Your task to perform on an android device: check battery use Image 0: 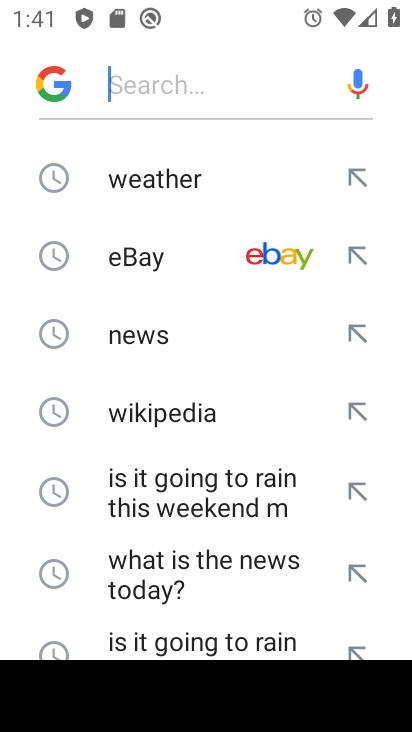
Step 0: press home button
Your task to perform on an android device: check battery use Image 1: 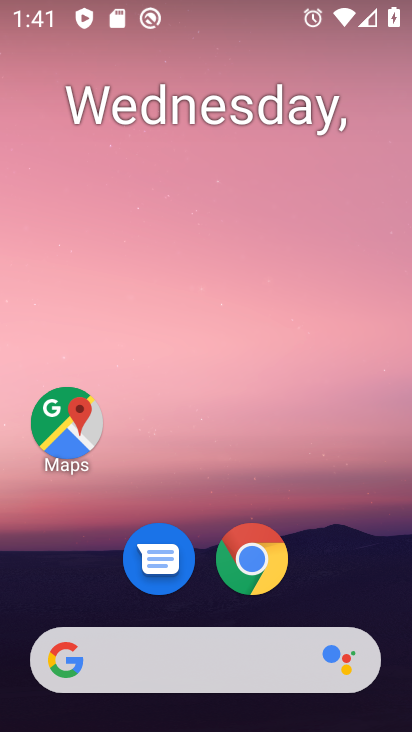
Step 1: drag from (357, 605) to (341, 109)
Your task to perform on an android device: check battery use Image 2: 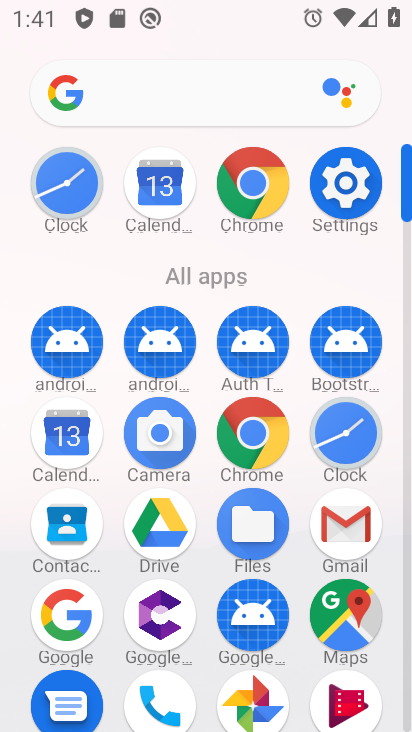
Step 2: click (349, 177)
Your task to perform on an android device: check battery use Image 3: 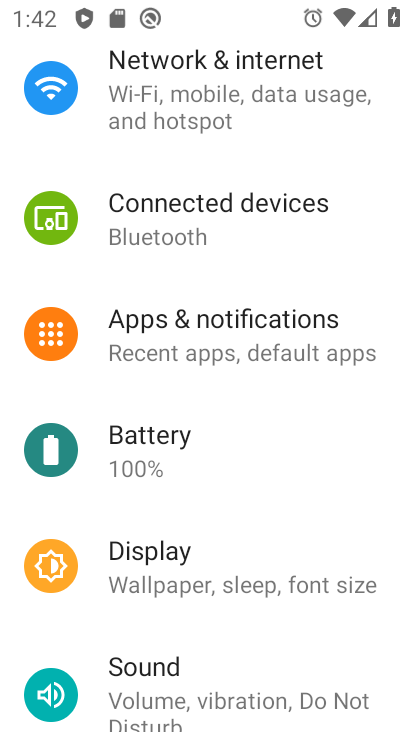
Step 3: click (229, 441)
Your task to perform on an android device: check battery use Image 4: 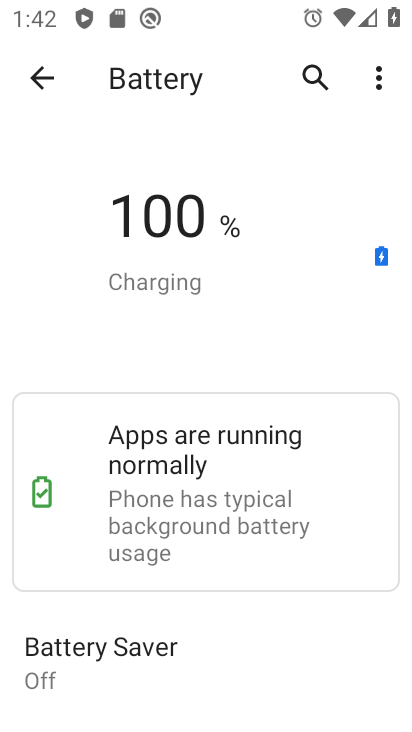
Step 4: click (372, 70)
Your task to perform on an android device: check battery use Image 5: 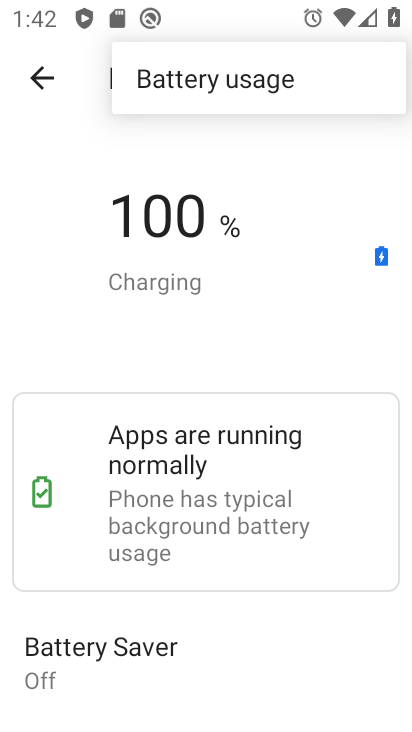
Step 5: click (328, 77)
Your task to perform on an android device: check battery use Image 6: 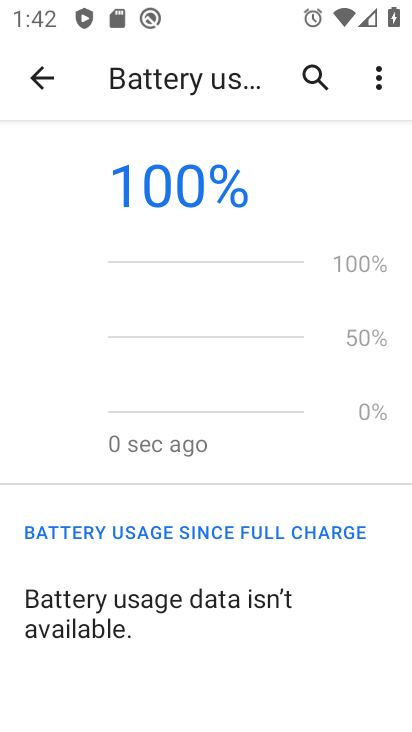
Step 6: task complete